Your task to perform on an android device: make emails show in primary in the gmail app Image 0: 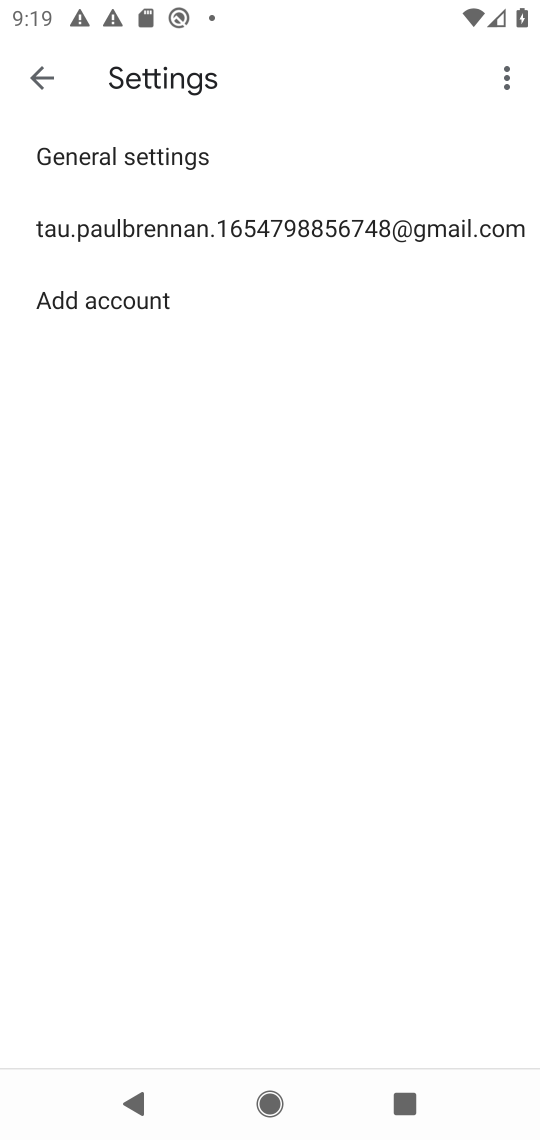
Step 0: press home button
Your task to perform on an android device: make emails show in primary in the gmail app Image 1: 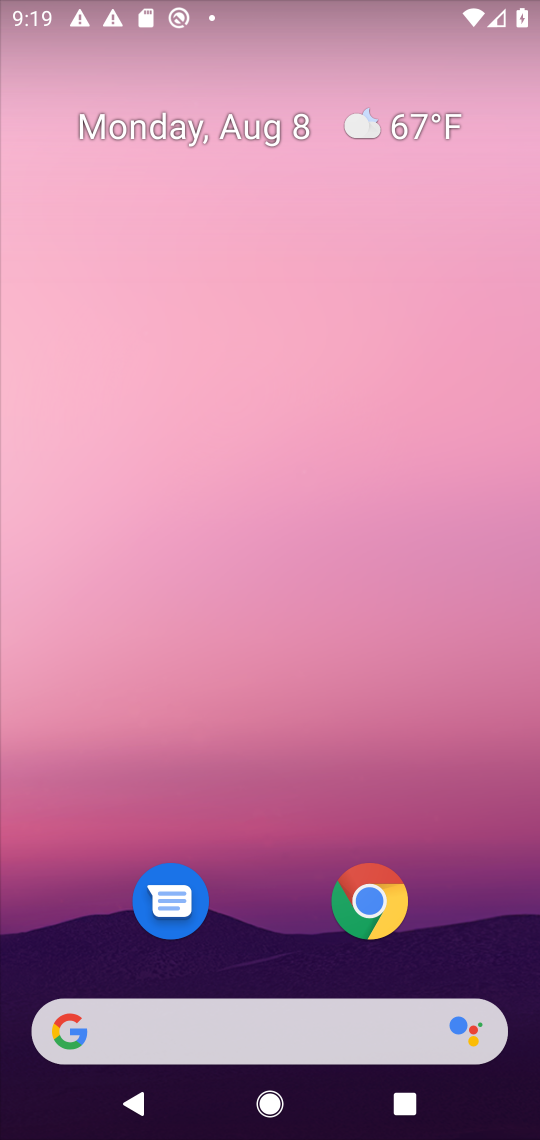
Step 1: drag from (254, 955) to (281, 165)
Your task to perform on an android device: make emails show in primary in the gmail app Image 2: 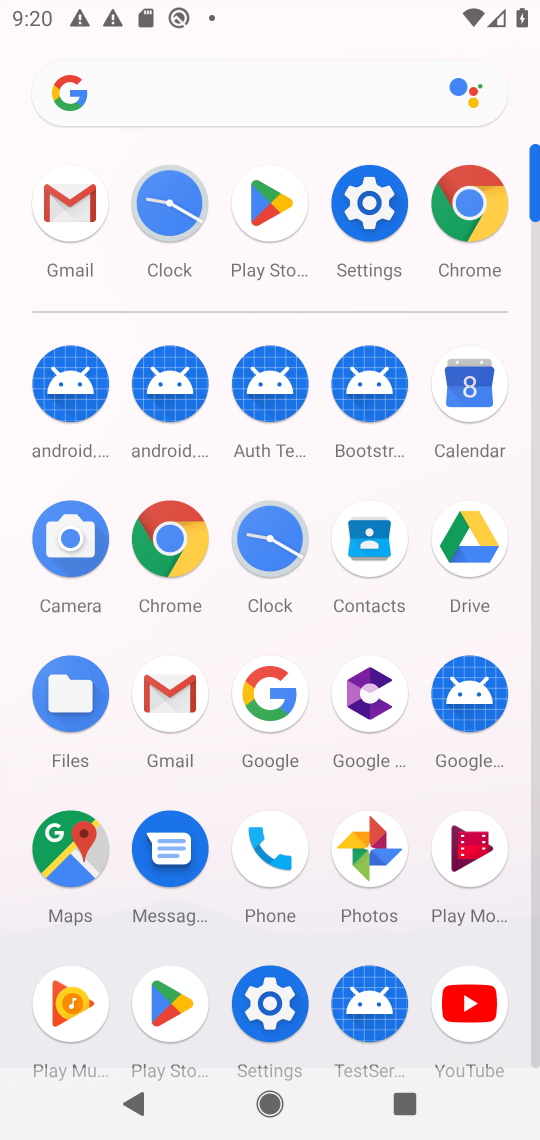
Step 2: click (62, 213)
Your task to perform on an android device: make emails show in primary in the gmail app Image 3: 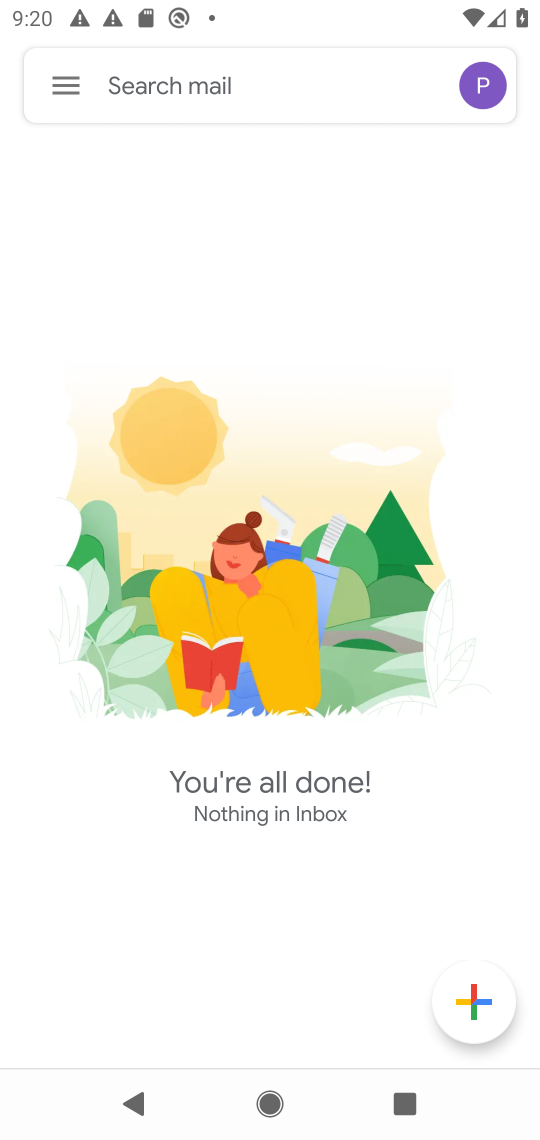
Step 3: click (68, 86)
Your task to perform on an android device: make emails show in primary in the gmail app Image 4: 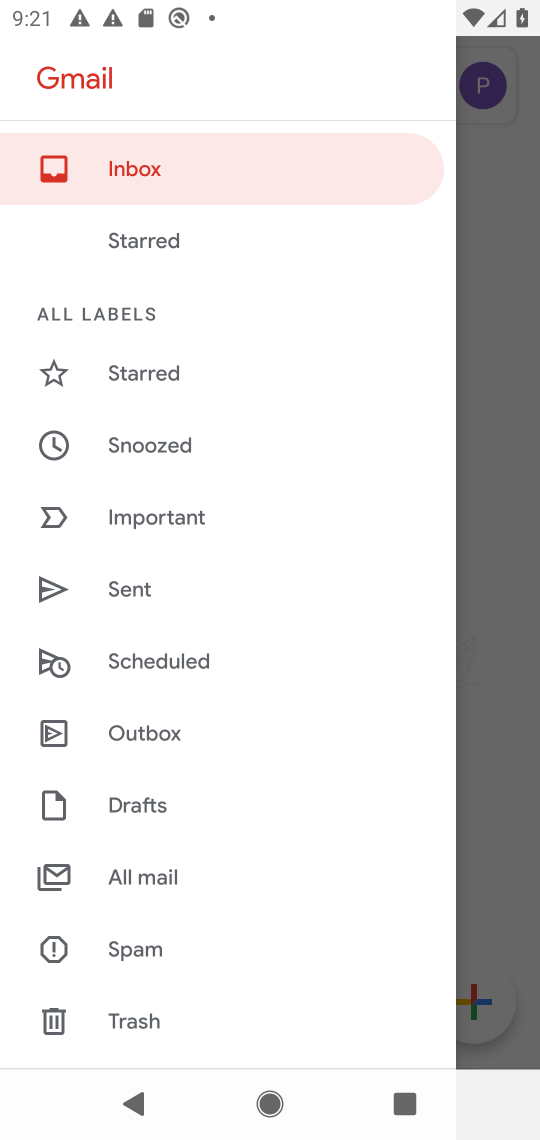
Step 4: drag from (179, 950) to (199, 590)
Your task to perform on an android device: make emails show in primary in the gmail app Image 5: 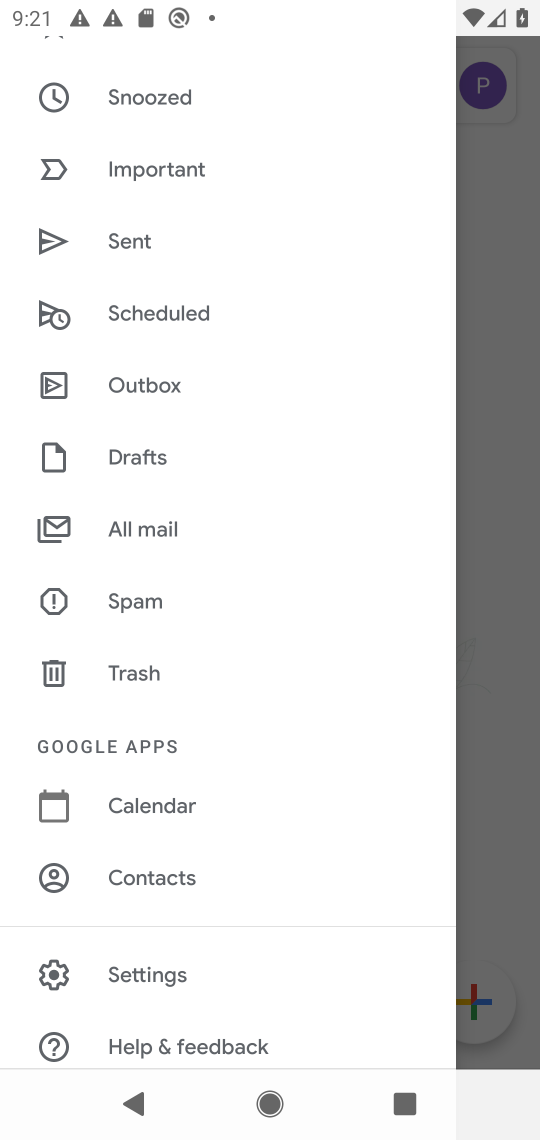
Step 5: drag from (141, 864) to (135, 462)
Your task to perform on an android device: make emails show in primary in the gmail app Image 6: 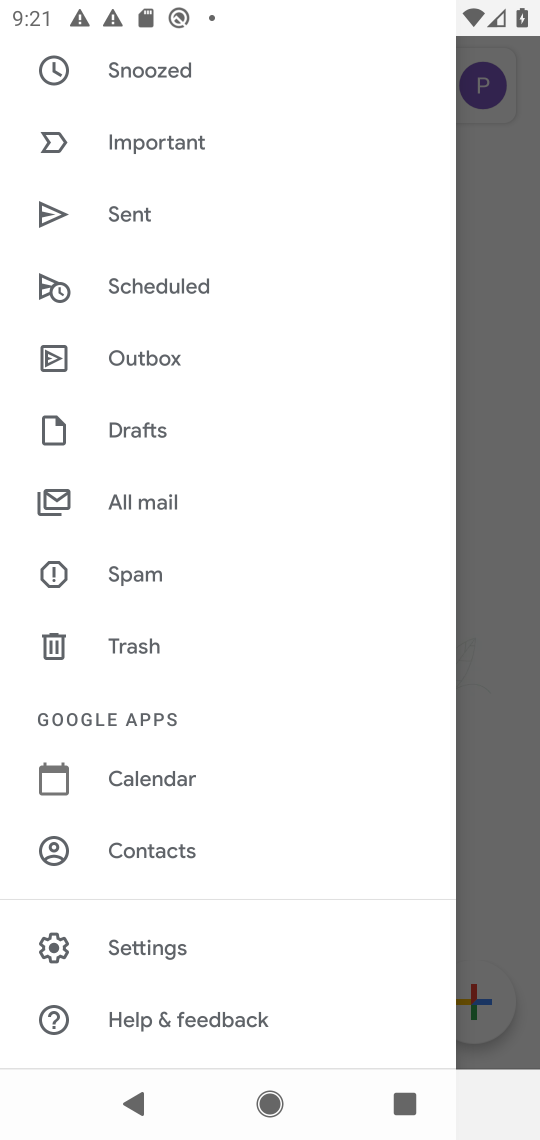
Step 6: click (147, 953)
Your task to perform on an android device: make emails show in primary in the gmail app Image 7: 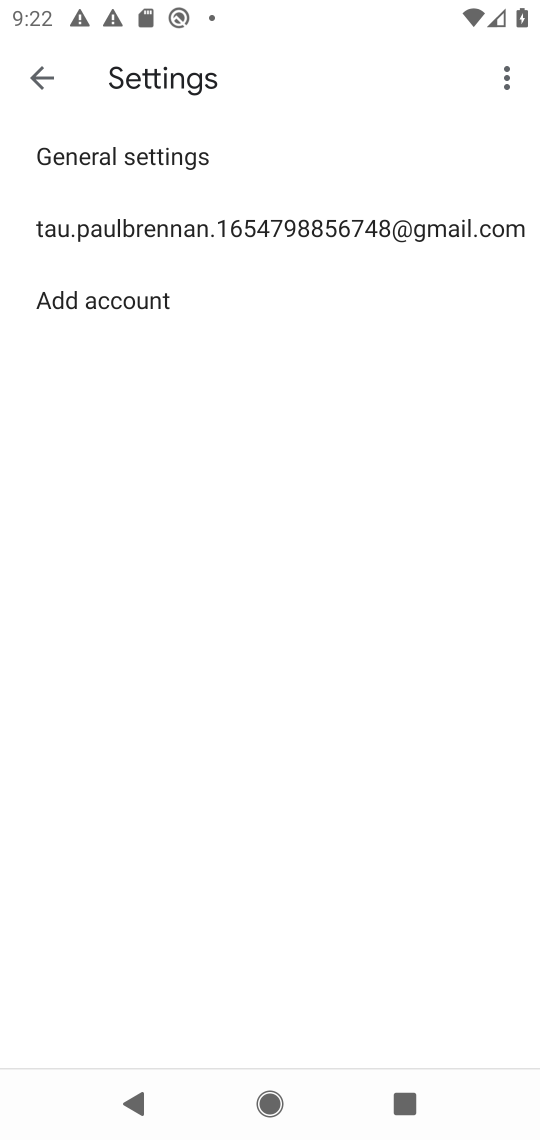
Step 7: click (284, 219)
Your task to perform on an android device: make emails show in primary in the gmail app Image 8: 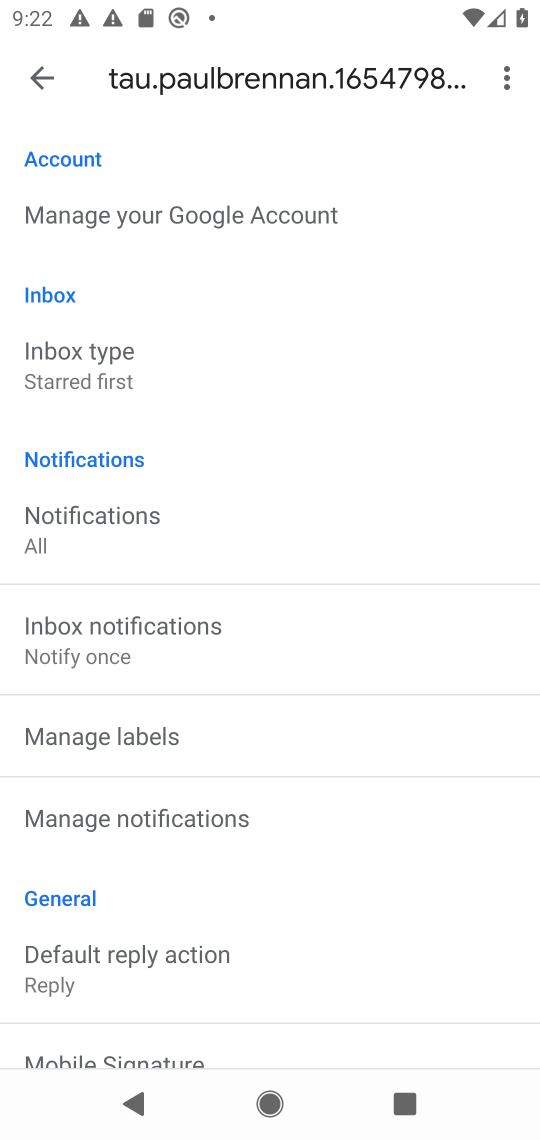
Step 8: click (112, 362)
Your task to perform on an android device: make emails show in primary in the gmail app Image 9: 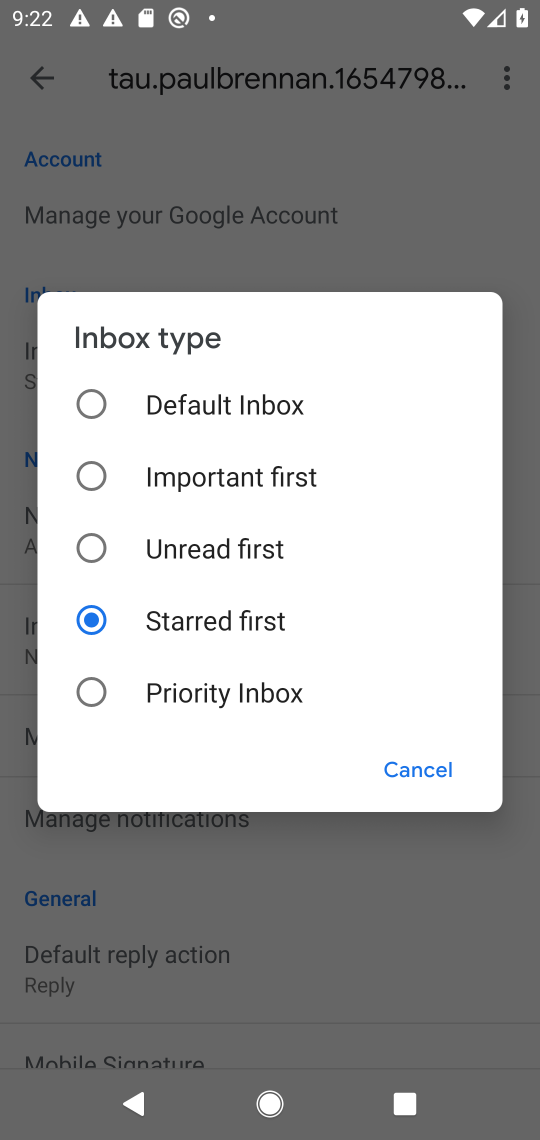
Step 9: task complete